Your task to perform on an android device: Open Chrome and go to settings Image 0: 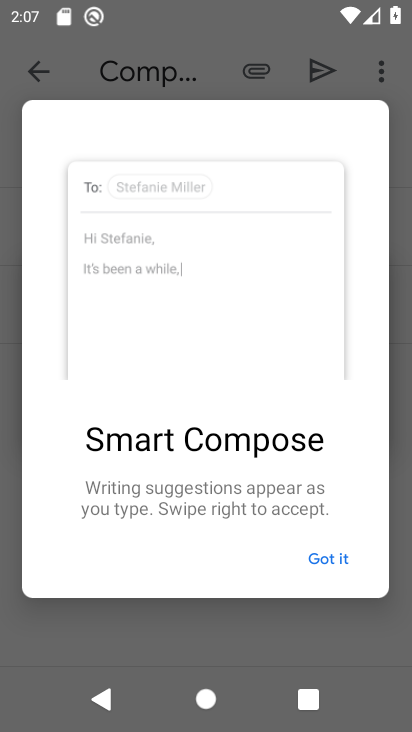
Step 0: press home button
Your task to perform on an android device: Open Chrome and go to settings Image 1: 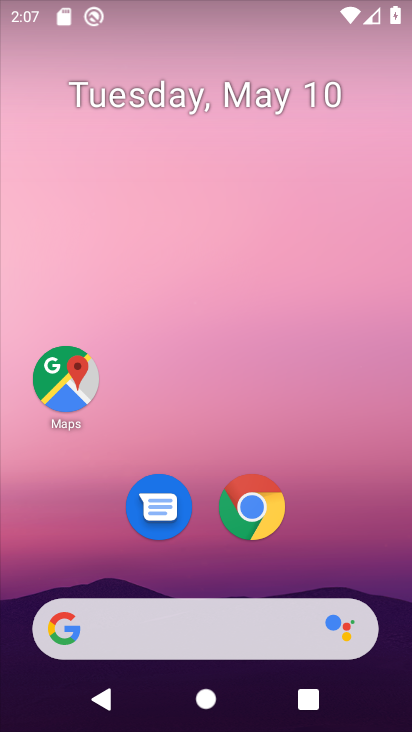
Step 1: click (254, 506)
Your task to perform on an android device: Open Chrome and go to settings Image 2: 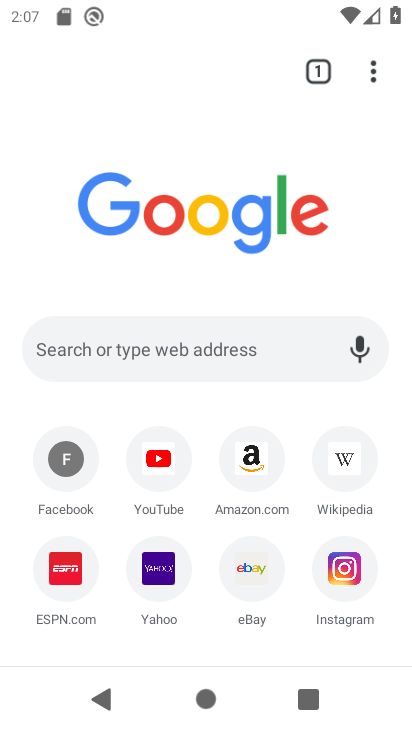
Step 2: click (369, 71)
Your task to perform on an android device: Open Chrome and go to settings Image 3: 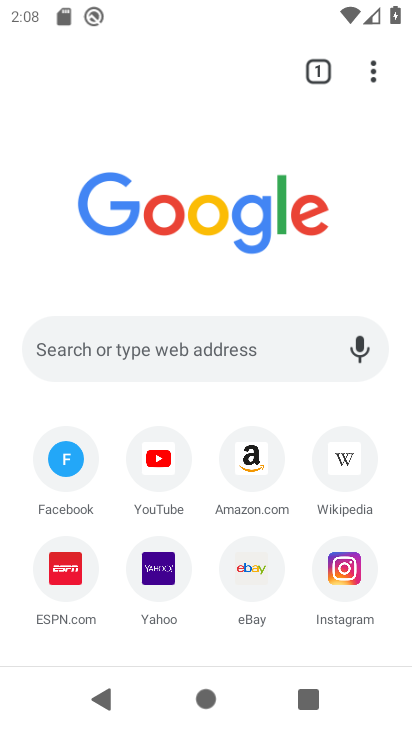
Step 3: click (375, 73)
Your task to perform on an android device: Open Chrome and go to settings Image 4: 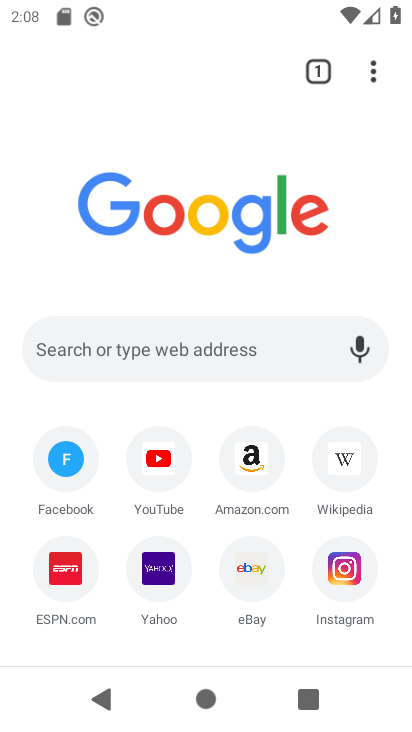
Step 4: click (370, 74)
Your task to perform on an android device: Open Chrome and go to settings Image 5: 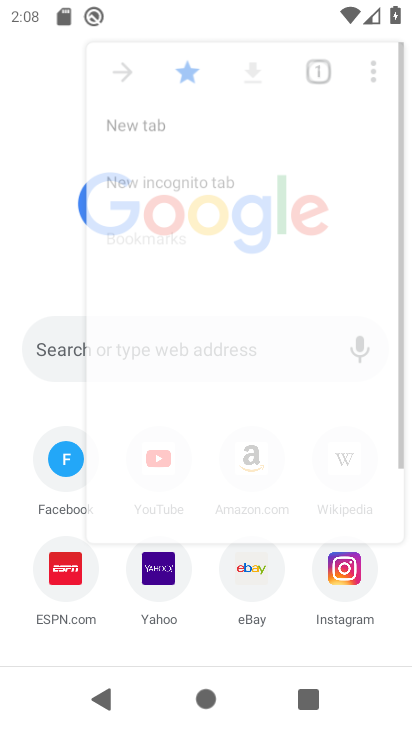
Step 5: drag from (370, 74) to (302, 234)
Your task to perform on an android device: Open Chrome and go to settings Image 6: 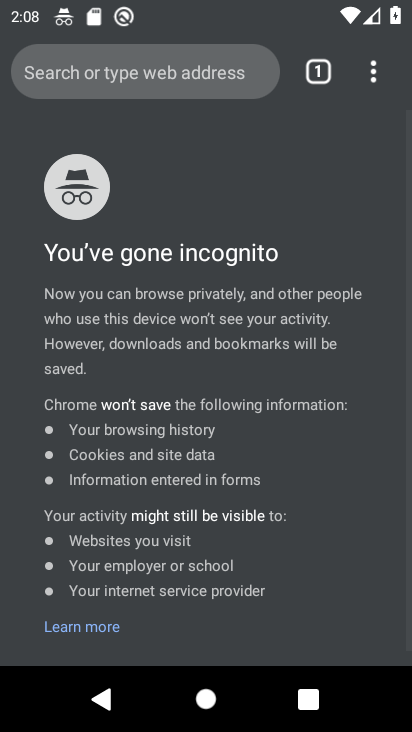
Step 6: click (370, 73)
Your task to perform on an android device: Open Chrome and go to settings Image 7: 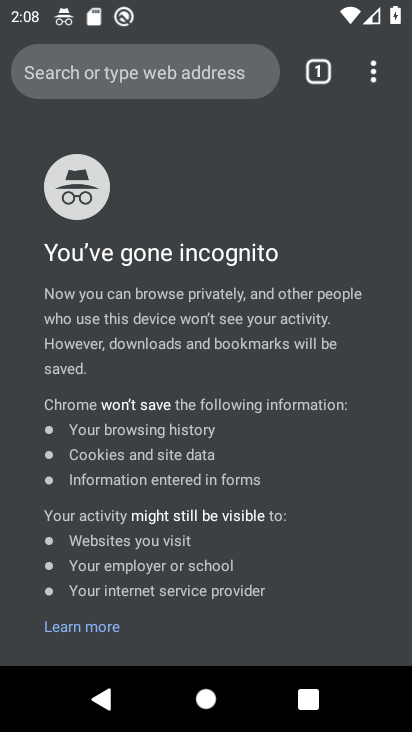
Step 7: click (377, 69)
Your task to perform on an android device: Open Chrome and go to settings Image 8: 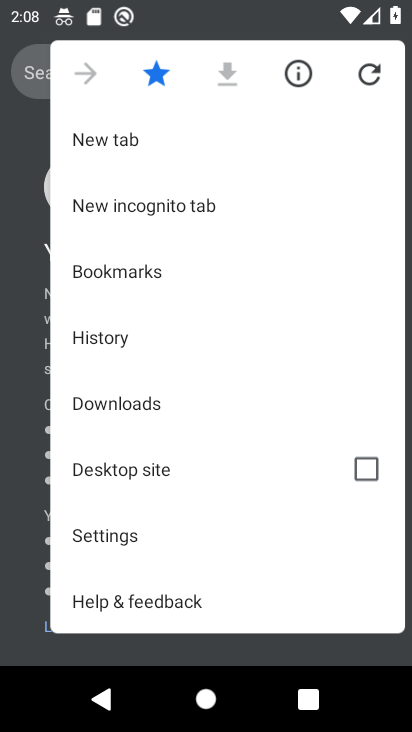
Step 8: click (136, 542)
Your task to perform on an android device: Open Chrome and go to settings Image 9: 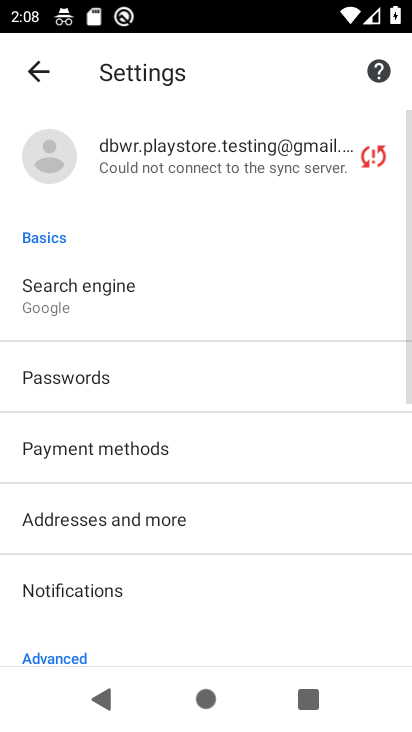
Step 9: task complete